Your task to perform on an android device: clear all cookies in the chrome app Image 0: 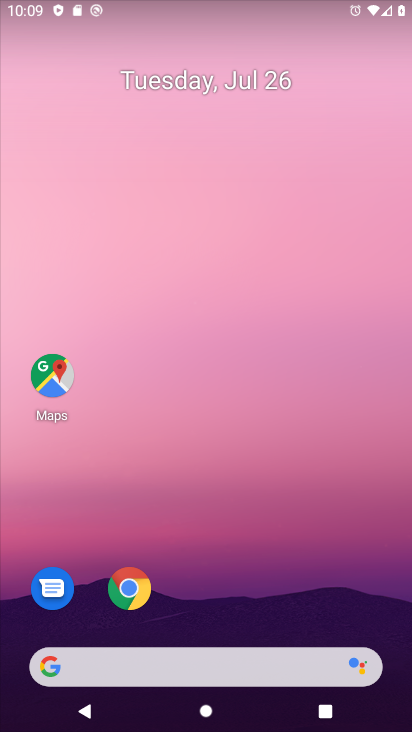
Step 0: click (130, 586)
Your task to perform on an android device: clear all cookies in the chrome app Image 1: 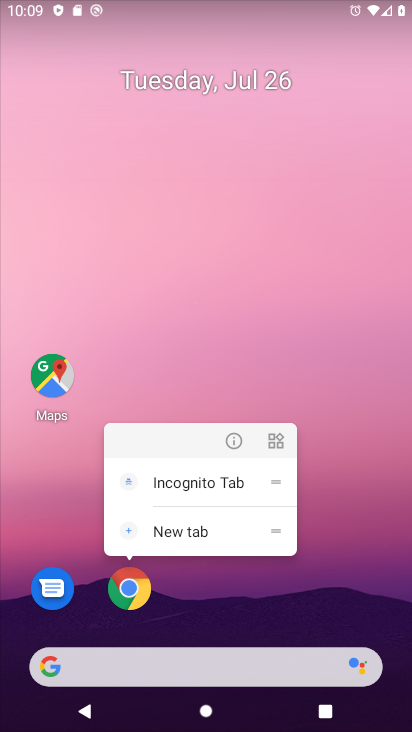
Step 1: click (130, 586)
Your task to perform on an android device: clear all cookies in the chrome app Image 2: 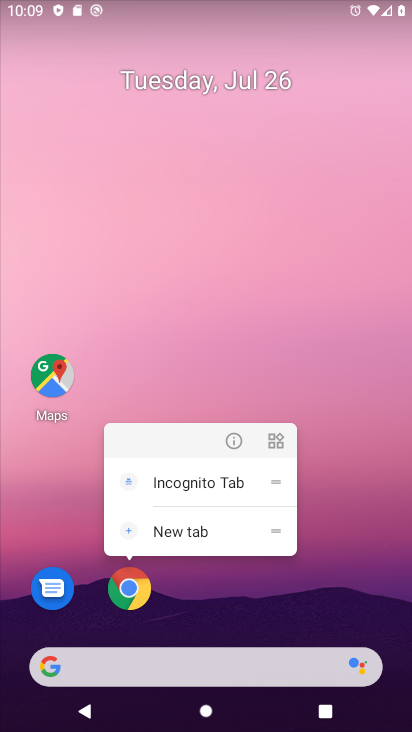
Step 2: click (133, 584)
Your task to perform on an android device: clear all cookies in the chrome app Image 3: 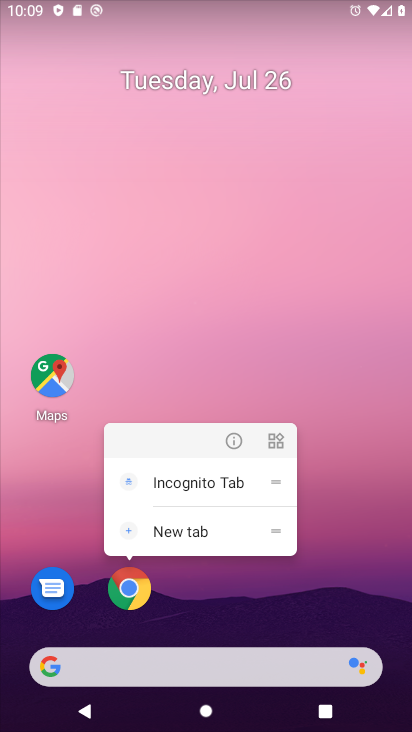
Step 3: click (119, 588)
Your task to perform on an android device: clear all cookies in the chrome app Image 4: 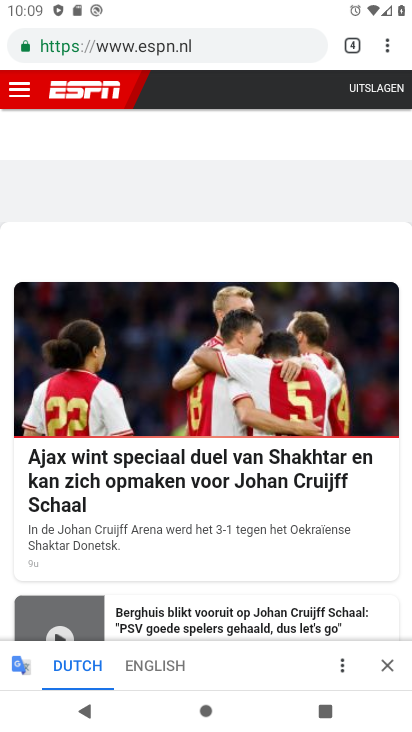
Step 4: drag from (390, 48) to (255, 259)
Your task to perform on an android device: clear all cookies in the chrome app Image 5: 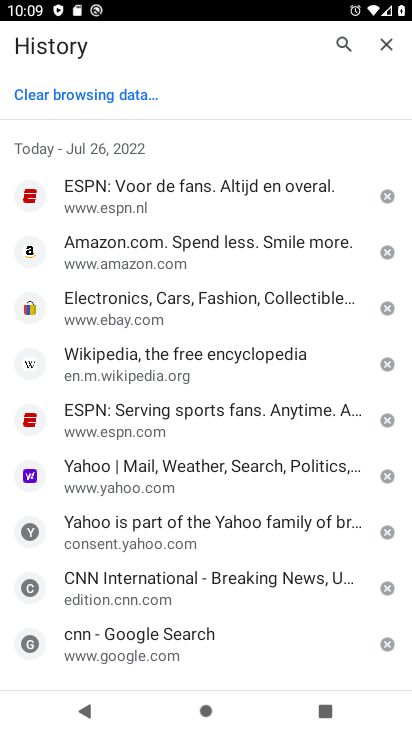
Step 5: click (128, 95)
Your task to perform on an android device: clear all cookies in the chrome app Image 6: 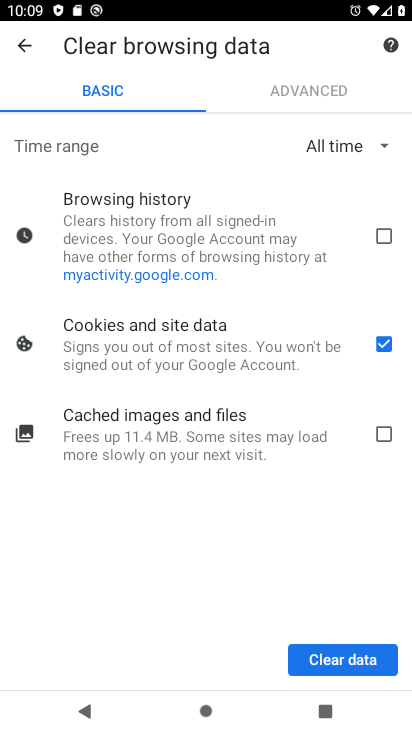
Step 6: click (312, 664)
Your task to perform on an android device: clear all cookies in the chrome app Image 7: 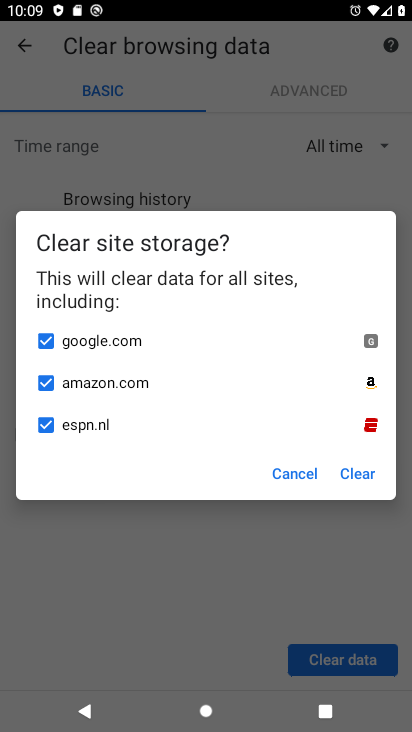
Step 7: click (356, 485)
Your task to perform on an android device: clear all cookies in the chrome app Image 8: 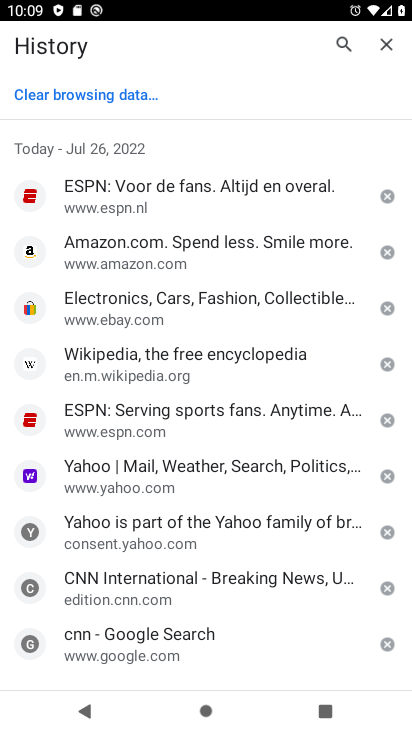
Step 8: task complete